Your task to perform on an android device: open chrome privacy settings Image 0: 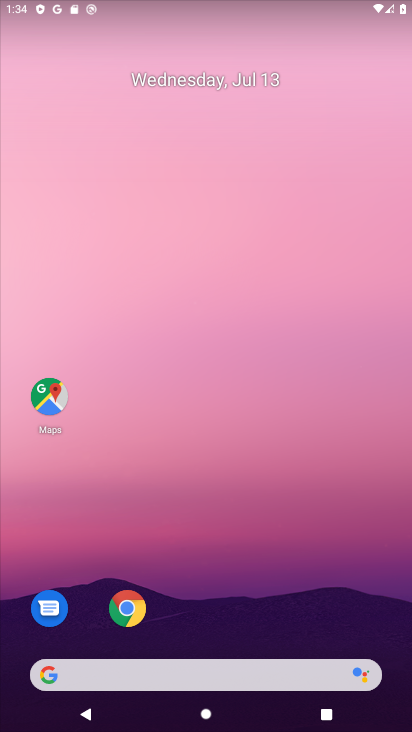
Step 0: click (131, 601)
Your task to perform on an android device: open chrome privacy settings Image 1: 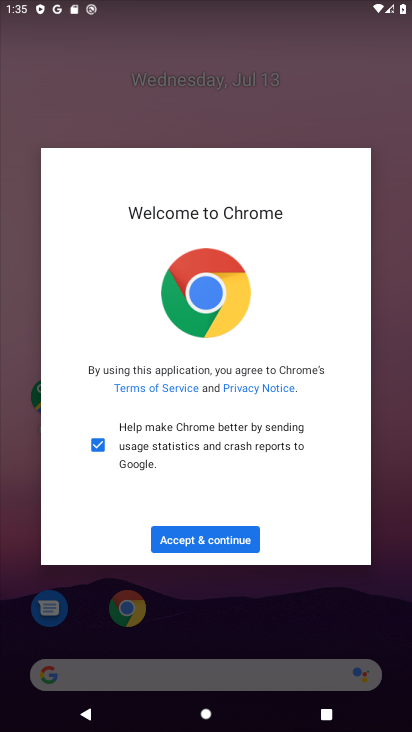
Step 1: click (162, 542)
Your task to perform on an android device: open chrome privacy settings Image 2: 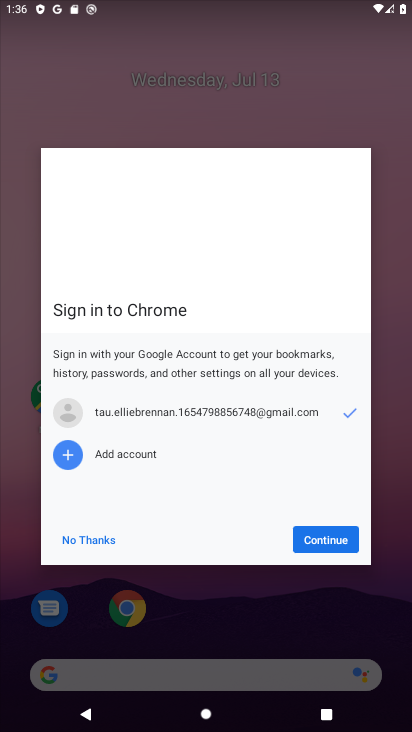
Step 2: click (309, 540)
Your task to perform on an android device: open chrome privacy settings Image 3: 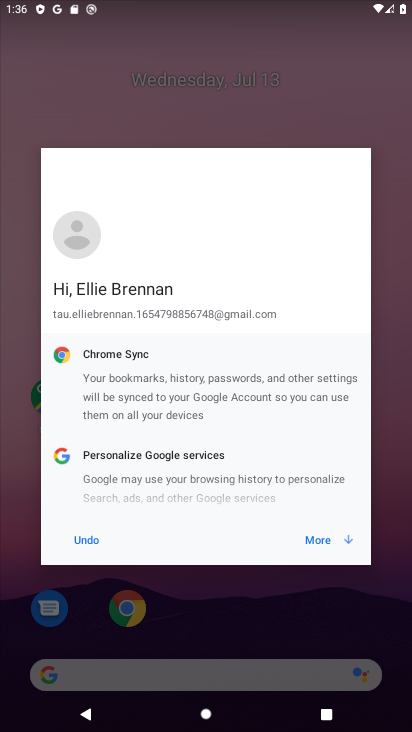
Step 3: click (309, 540)
Your task to perform on an android device: open chrome privacy settings Image 4: 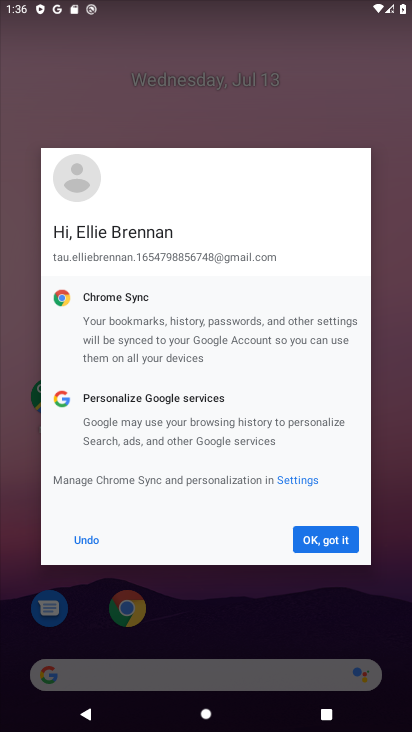
Step 4: click (309, 540)
Your task to perform on an android device: open chrome privacy settings Image 5: 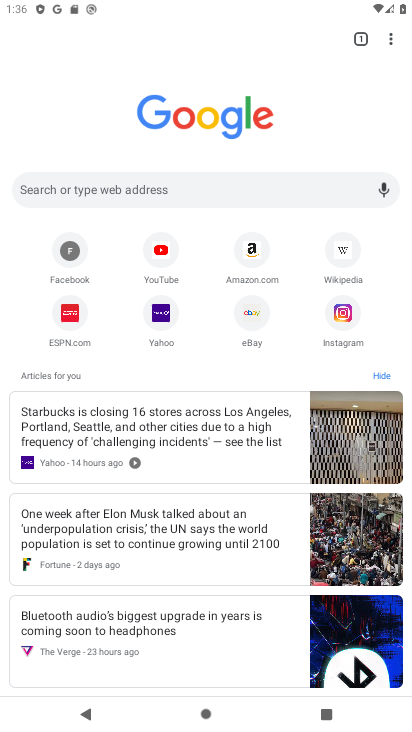
Step 5: click (396, 45)
Your task to perform on an android device: open chrome privacy settings Image 6: 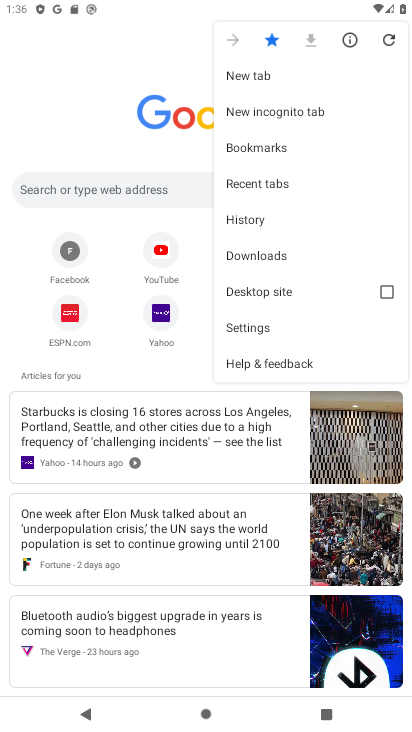
Step 6: click (262, 326)
Your task to perform on an android device: open chrome privacy settings Image 7: 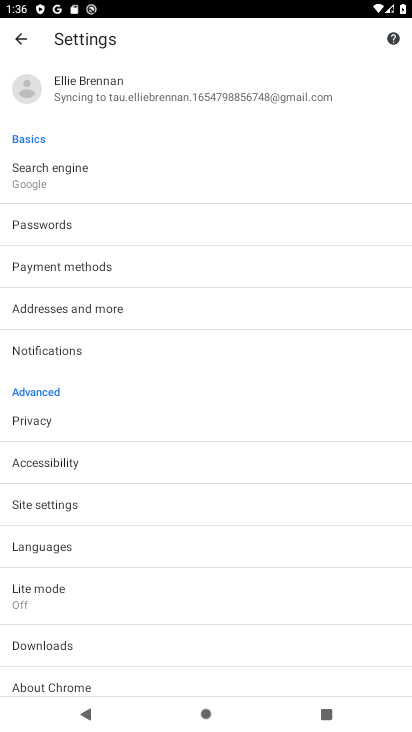
Step 7: click (119, 415)
Your task to perform on an android device: open chrome privacy settings Image 8: 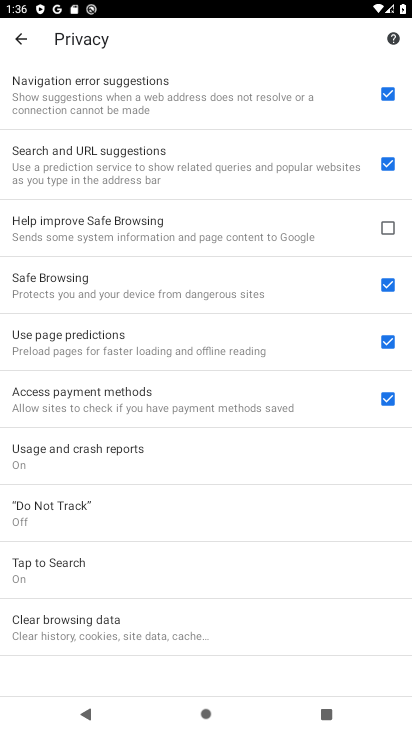
Step 8: task complete